Your task to perform on an android device: turn off airplane mode Image 0: 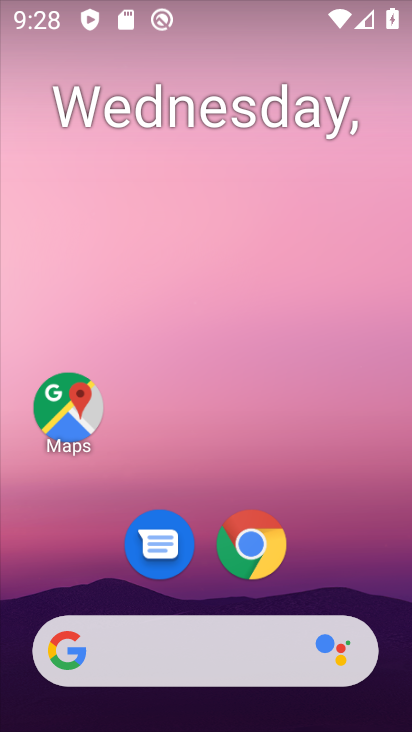
Step 0: drag from (385, 548) to (377, 59)
Your task to perform on an android device: turn off airplane mode Image 1: 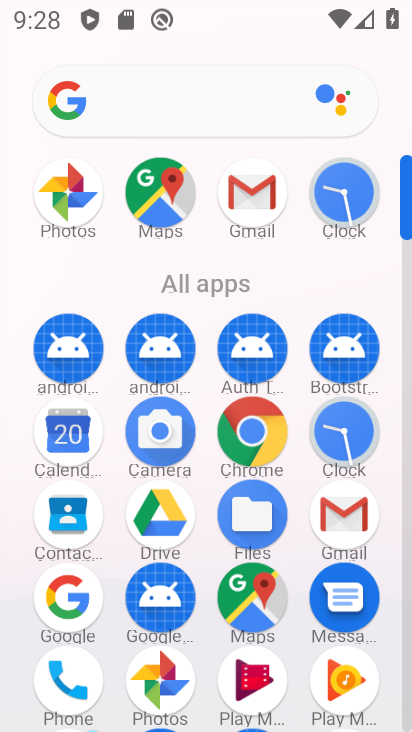
Step 1: task complete